Your task to perform on an android device: Go to Google maps Image 0: 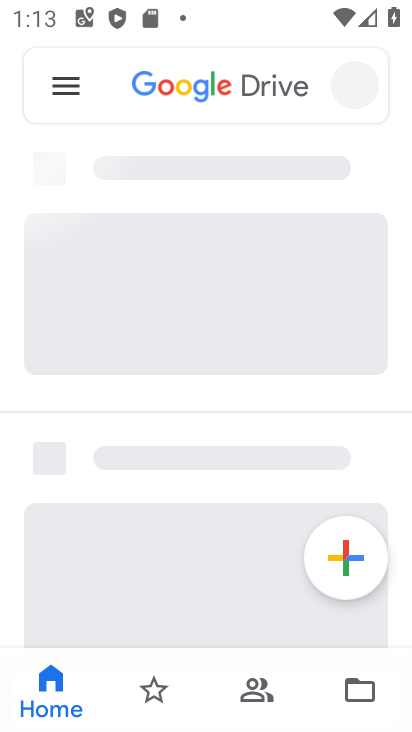
Step 0: click (270, 568)
Your task to perform on an android device: Go to Google maps Image 1: 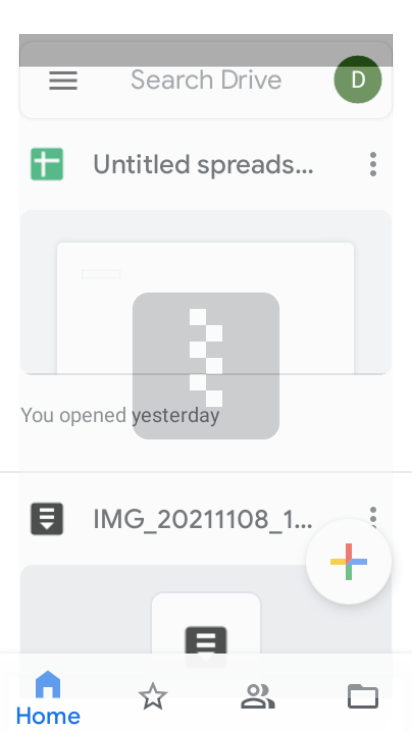
Step 1: press home button
Your task to perform on an android device: Go to Google maps Image 2: 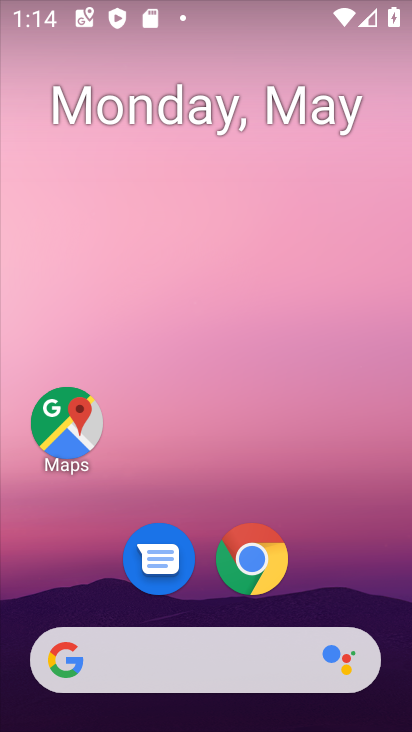
Step 2: click (83, 426)
Your task to perform on an android device: Go to Google maps Image 3: 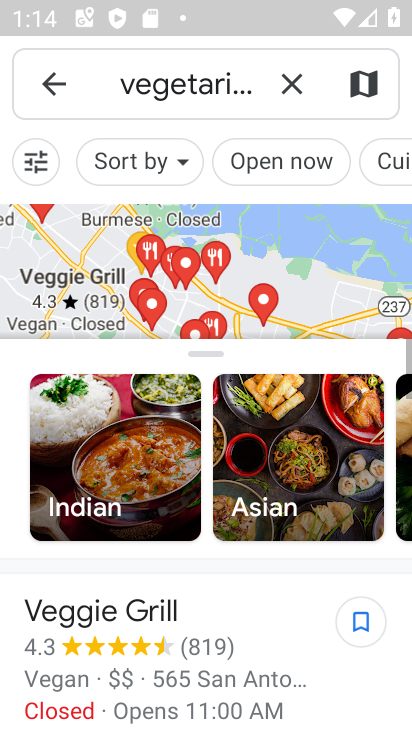
Step 3: task complete